Your task to perform on an android device: Go to ESPN.com Image 0: 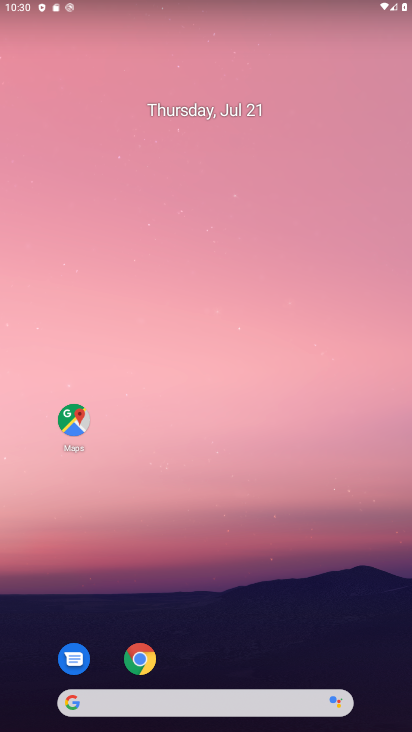
Step 0: click (140, 660)
Your task to perform on an android device: Go to ESPN.com Image 1: 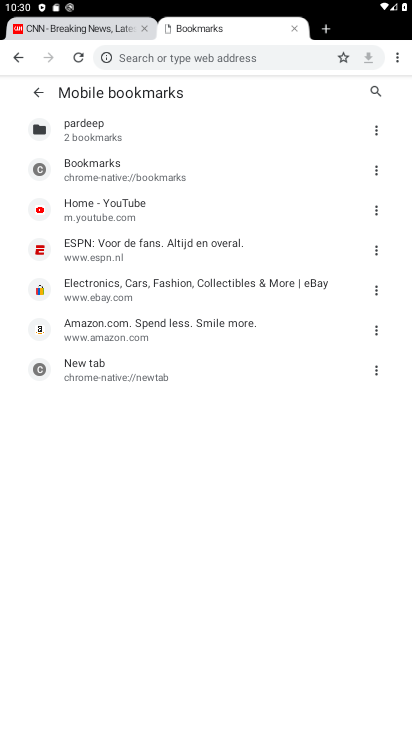
Step 1: click (88, 236)
Your task to perform on an android device: Go to ESPN.com Image 2: 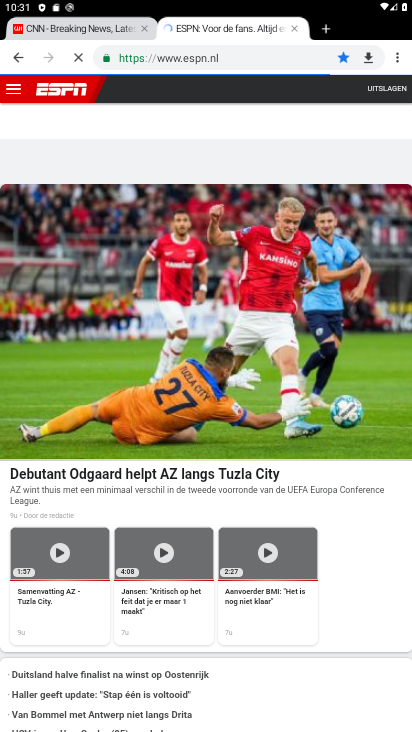
Step 2: task complete